Your task to perform on an android device: Open accessibility settings Image 0: 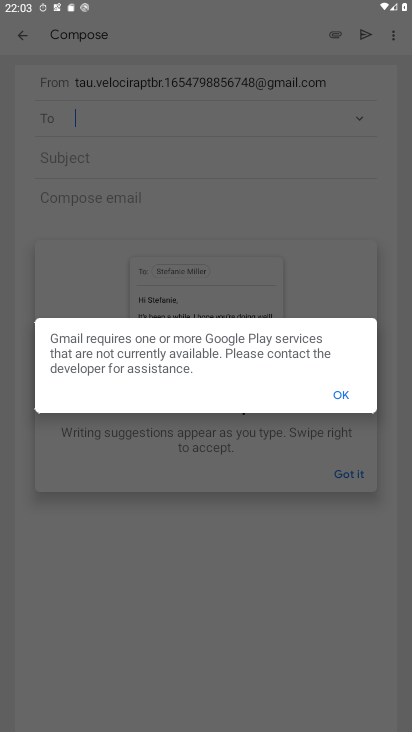
Step 0: press home button
Your task to perform on an android device: Open accessibility settings Image 1: 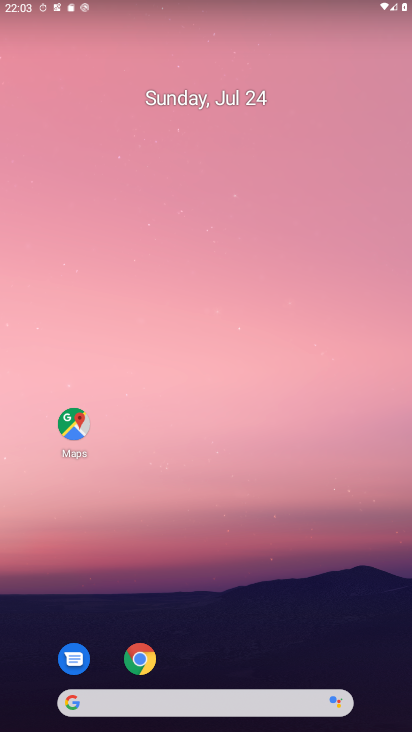
Step 1: drag from (198, 675) to (241, 86)
Your task to perform on an android device: Open accessibility settings Image 2: 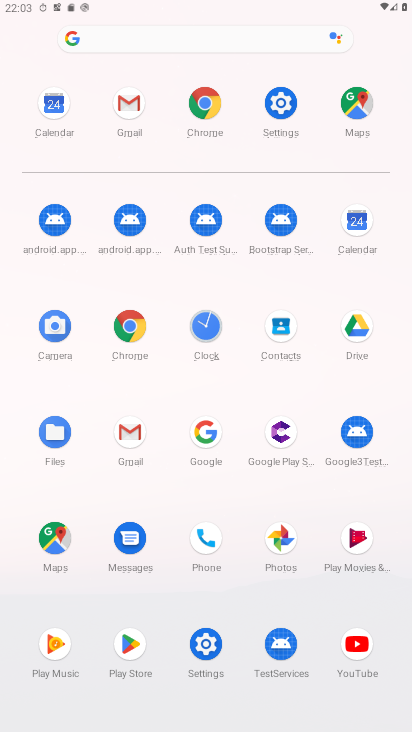
Step 2: click (278, 105)
Your task to perform on an android device: Open accessibility settings Image 3: 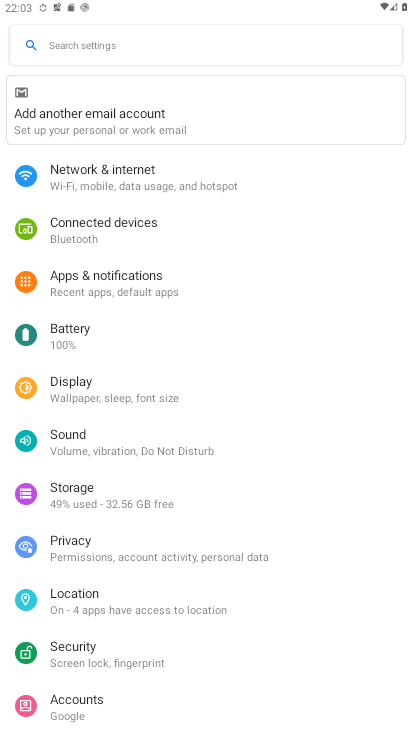
Step 3: drag from (116, 683) to (130, 341)
Your task to perform on an android device: Open accessibility settings Image 4: 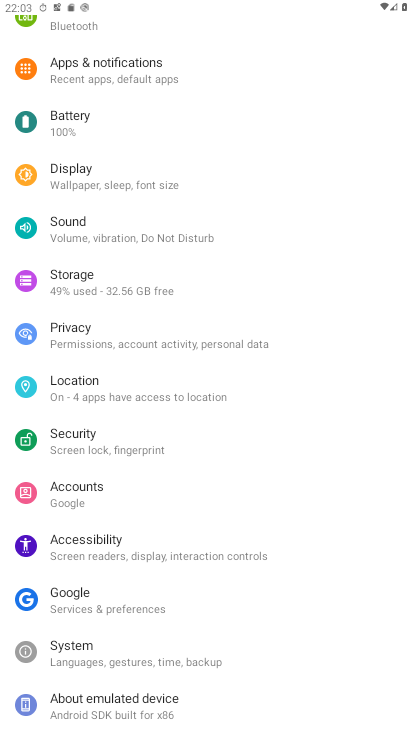
Step 4: click (74, 530)
Your task to perform on an android device: Open accessibility settings Image 5: 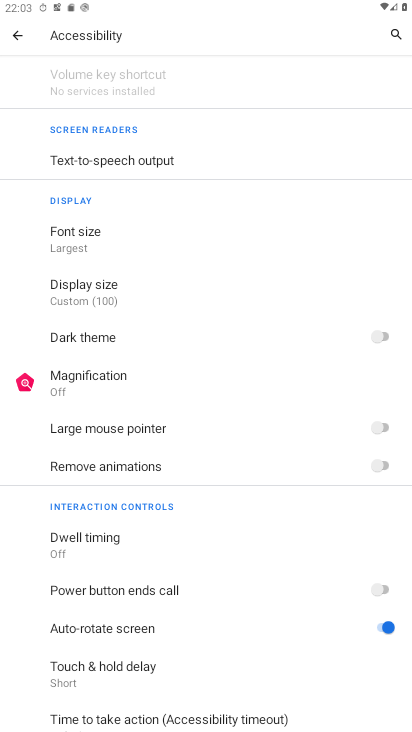
Step 5: task complete